Your task to perform on an android device: turn on data saver in the chrome app Image 0: 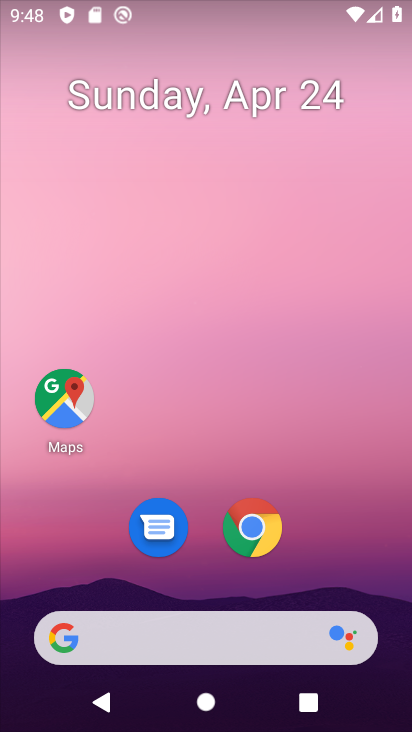
Step 0: click (251, 530)
Your task to perform on an android device: turn on data saver in the chrome app Image 1: 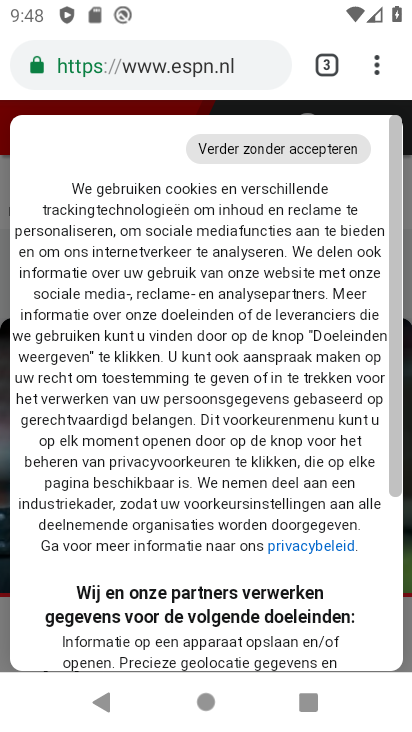
Step 1: drag from (382, 64) to (174, 563)
Your task to perform on an android device: turn on data saver in the chrome app Image 2: 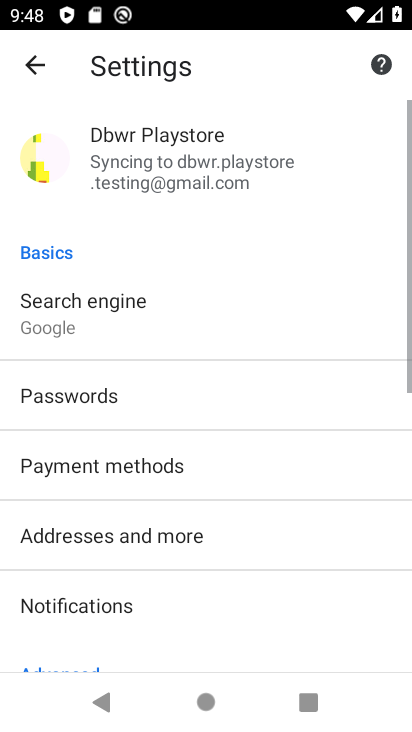
Step 2: drag from (157, 634) to (285, 106)
Your task to perform on an android device: turn on data saver in the chrome app Image 3: 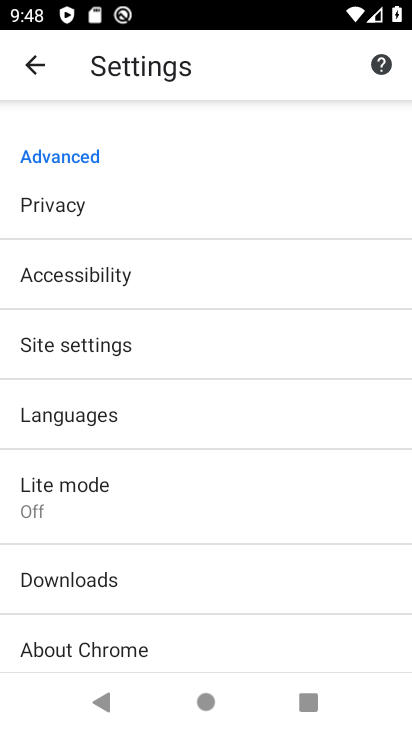
Step 3: click (115, 480)
Your task to perform on an android device: turn on data saver in the chrome app Image 4: 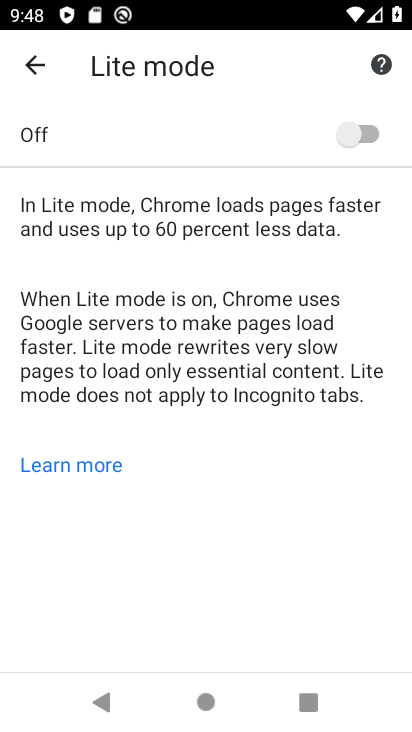
Step 4: click (363, 132)
Your task to perform on an android device: turn on data saver in the chrome app Image 5: 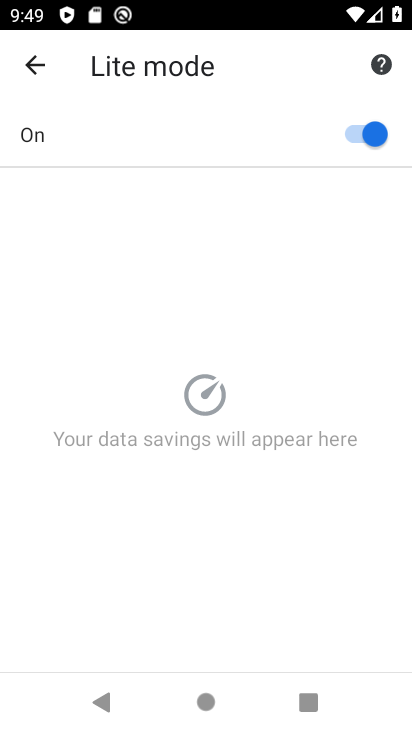
Step 5: task complete